Your task to perform on an android device: add a contact in the contacts app Image 0: 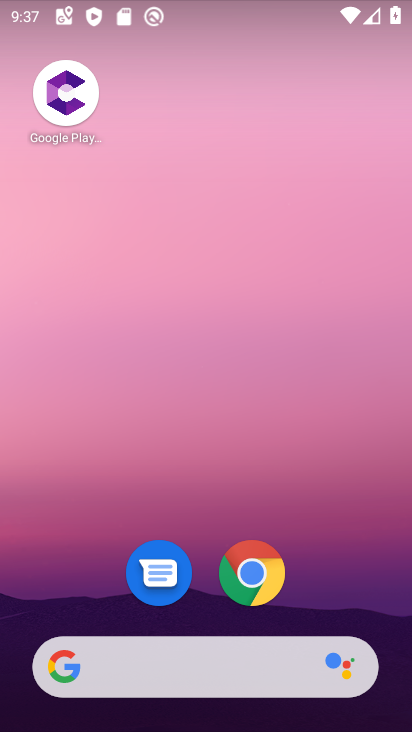
Step 0: drag from (350, 539) to (296, 85)
Your task to perform on an android device: add a contact in the contacts app Image 1: 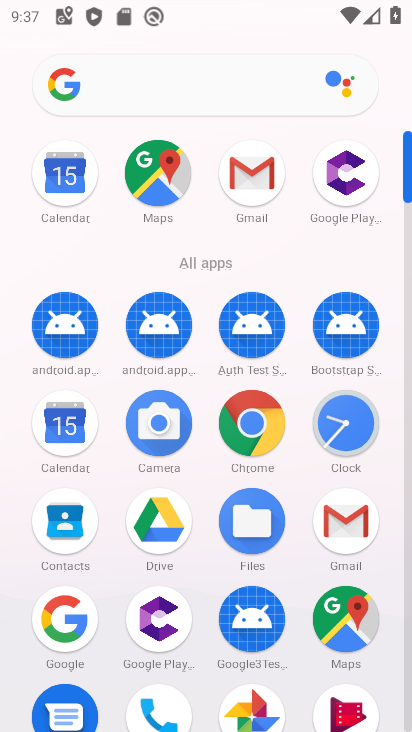
Step 1: click (52, 499)
Your task to perform on an android device: add a contact in the contacts app Image 2: 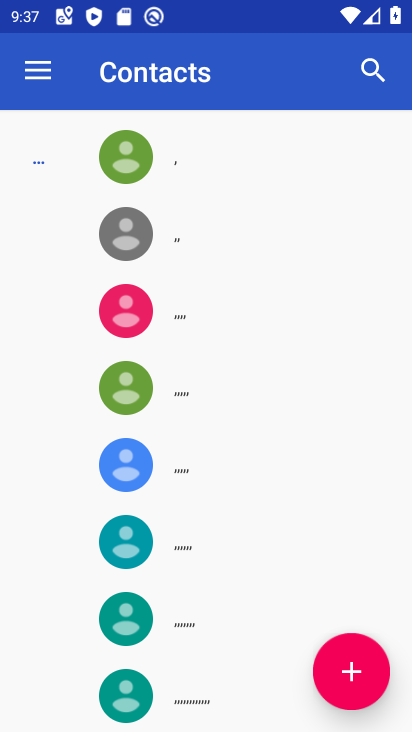
Step 2: click (366, 673)
Your task to perform on an android device: add a contact in the contacts app Image 3: 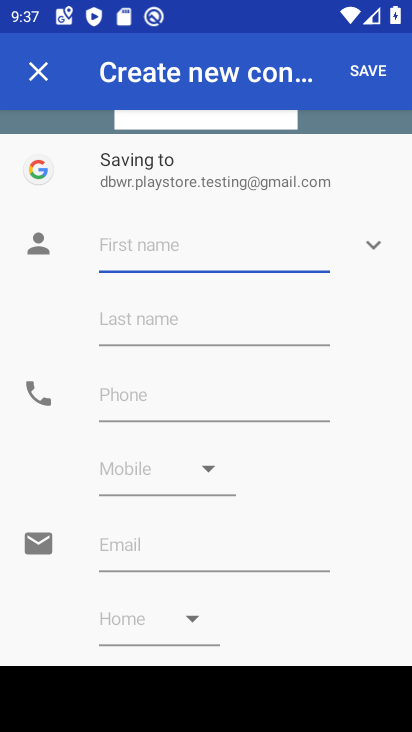
Step 3: type "sd"
Your task to perform on an android device: add a contact in the contacts app Image 4: 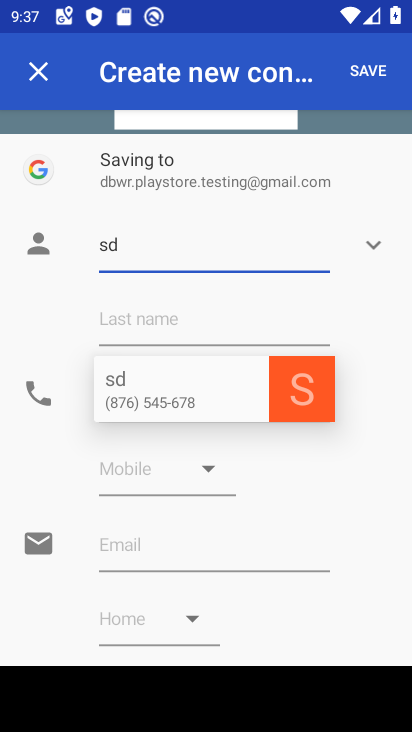
Step 4: click (172, 393)
Your task to perform on an android device: add a contact in the contacts app Image 5: 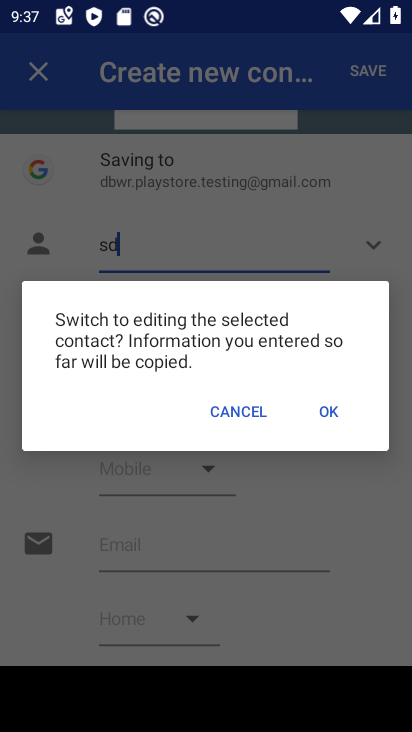
Step 5: click (233, 422)
Your task to perform on an android device: add a contact in the contacts app Image 6: 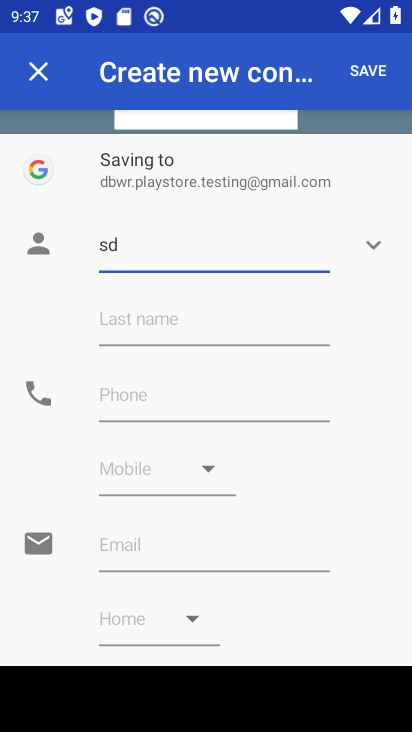
Step 6: click (218, 380)
Your task to perform on an android device: add a contact in the contacts app Image 7: 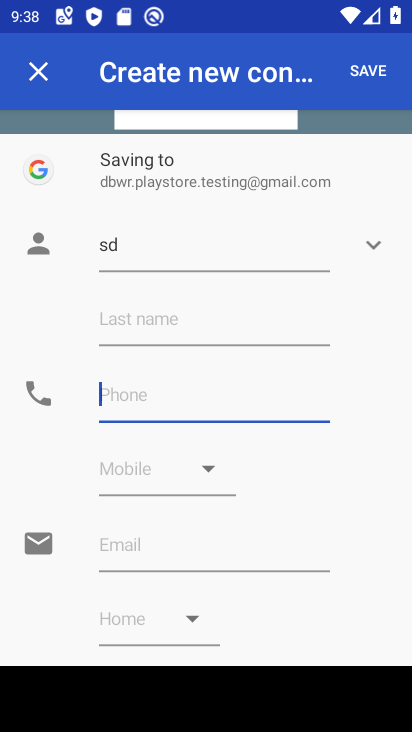
Step 7: type ".,.,"
Your task to perform on an android device: add a contact in the contacts app Image 8: 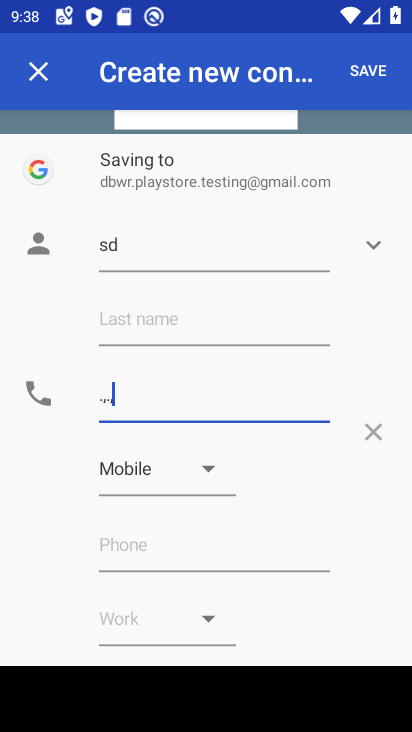
Step 8: click (381, 67)
Your task to perform on an android device: add a contact in the contacts app Image 9: 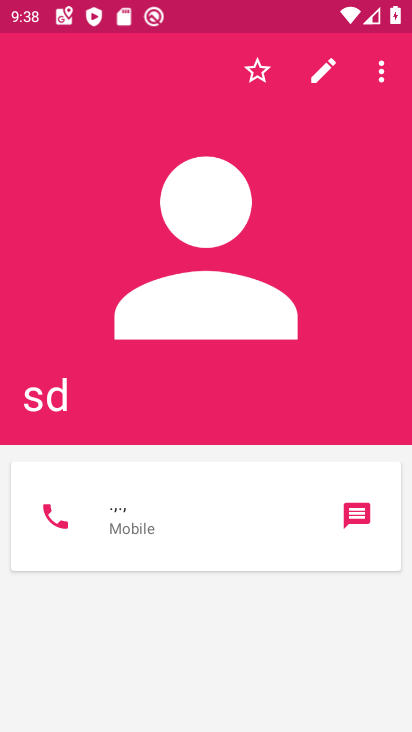
Step 9: task complete